Your task to perform on an android device: Open notification settings Image 0: 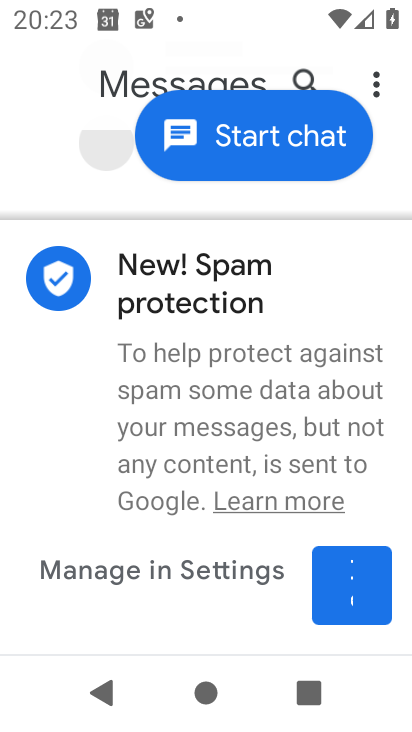
Step 0: press home button
Your task to perform on an android device: Open notification settings Image 1: 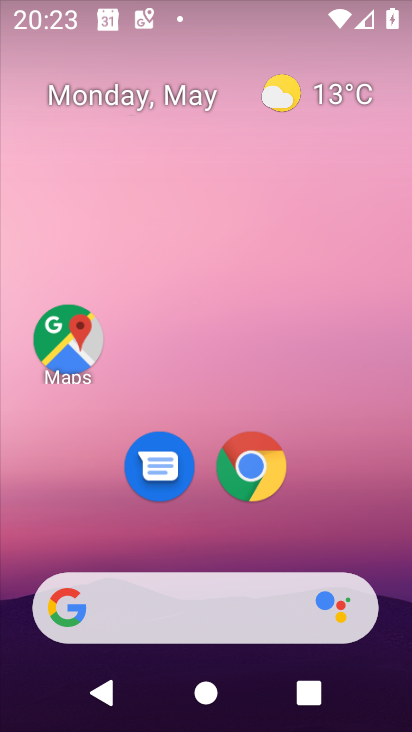
Step 1: drag from (340, 486) to (344, 252)
Your task to perform on an android device: Open notification settings Image 2: 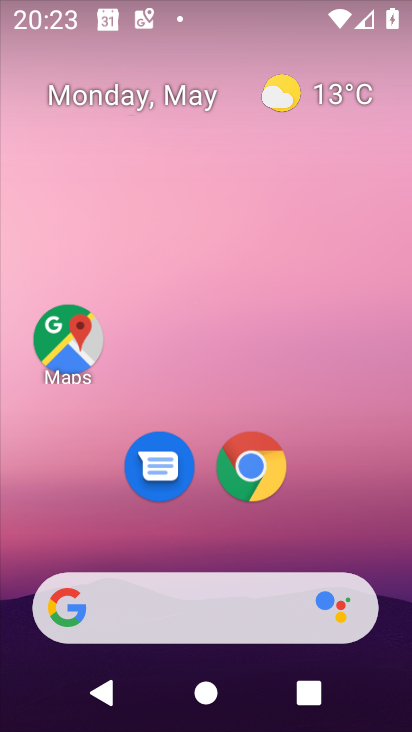
Step 2: drag from (271, 513) to (287, 208)
Your task to perform on an android device: Open notification settings Image 3: 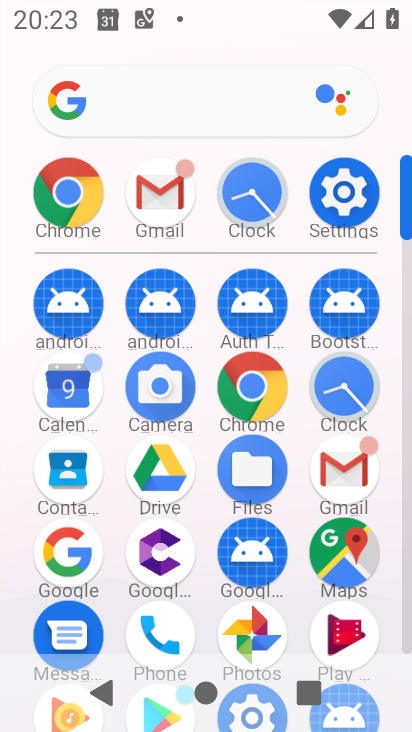
Step 3: click (346, 181)
Your task to perform on an android device: Open notification settings Image 4: 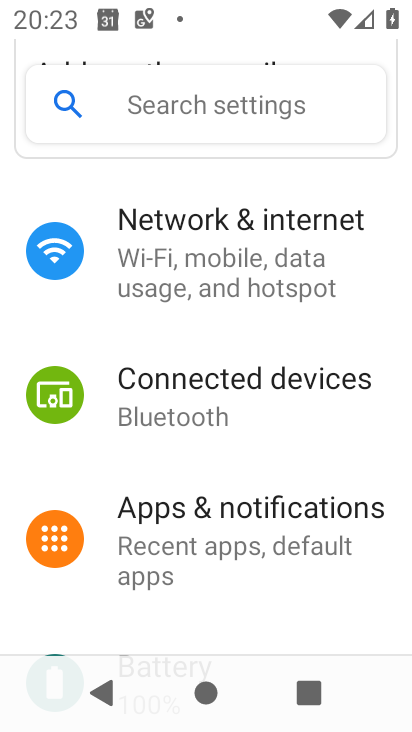
Step 4: drag from (176, 574) to (227, 284)
Your task to perform on an android device: Open notification settings Image 5: 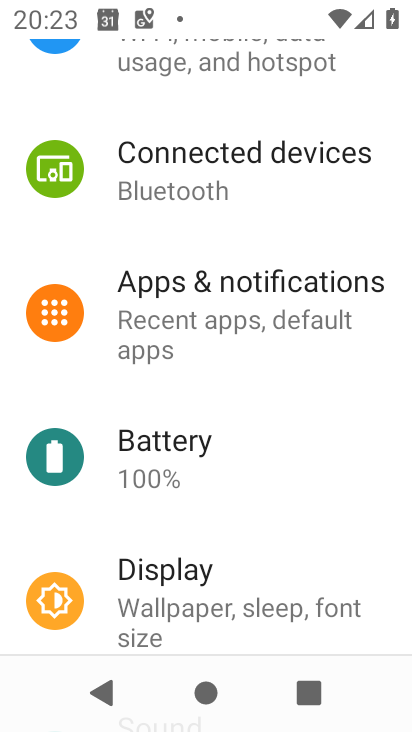
Step 5: click (212, 298)
Your task to perform on an android device: Open notification settings Image 6: 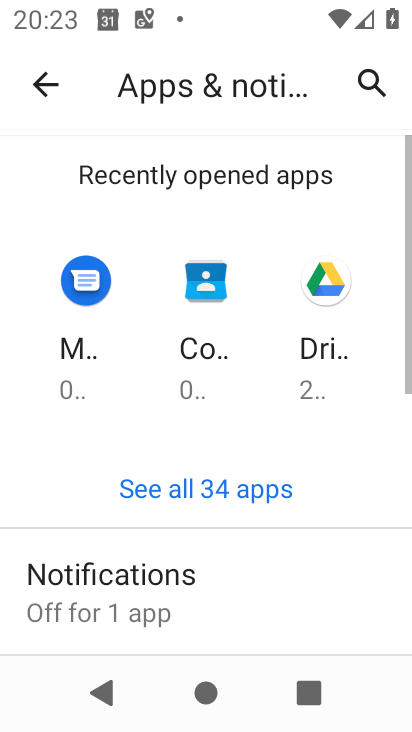
Step 6: drag from (221, 597) to (271, 366)
Your task to perform on an android device: Open notification settings Image 7: 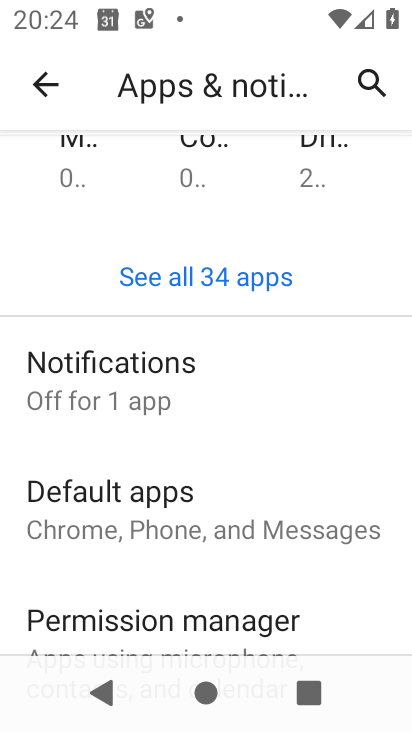
Step 7: click (153, 377)
Your task to perform on an android device: Open notification settings Image 8: 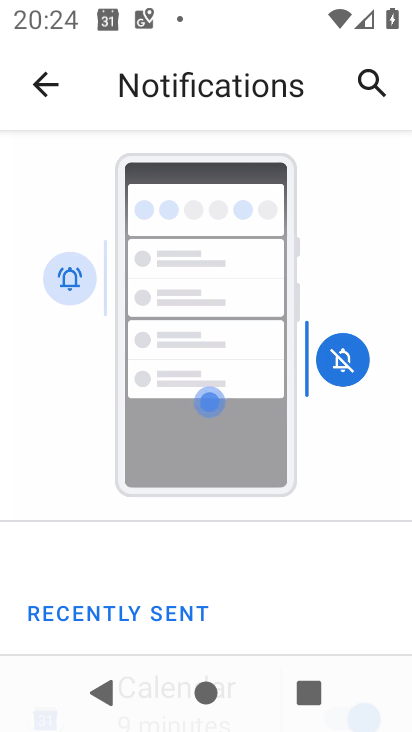
Step 8: task complete